Your task to perform on an android device: Check the news Image 0: 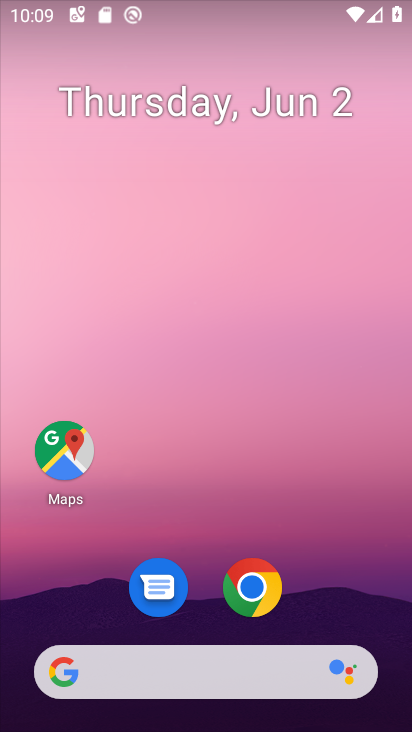
Step 0: drag from (5, 184) to (359, 203)
Your task to perform on an android device: Check the news Image 1: 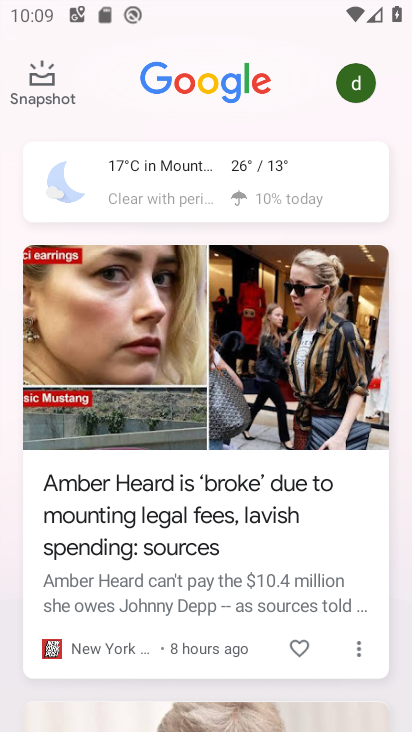
Step 1: task complete